Your task to perform on an android device: Turn off the flashlight Image 0: 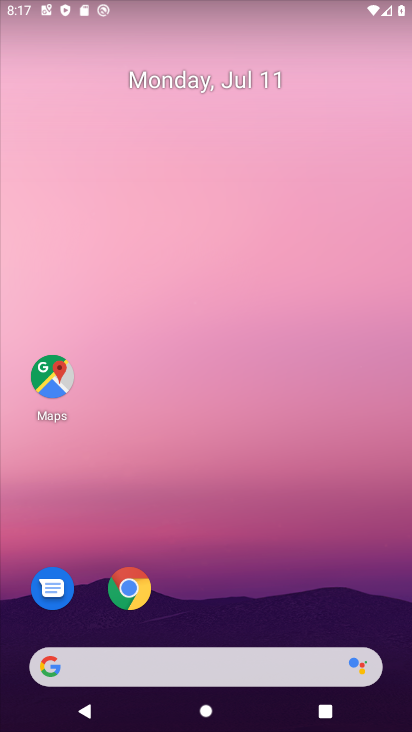
Step 0: drag from (281, 559) to (270, 186)
Your task to perform on an android device: Turn off the flashlight Image 1: 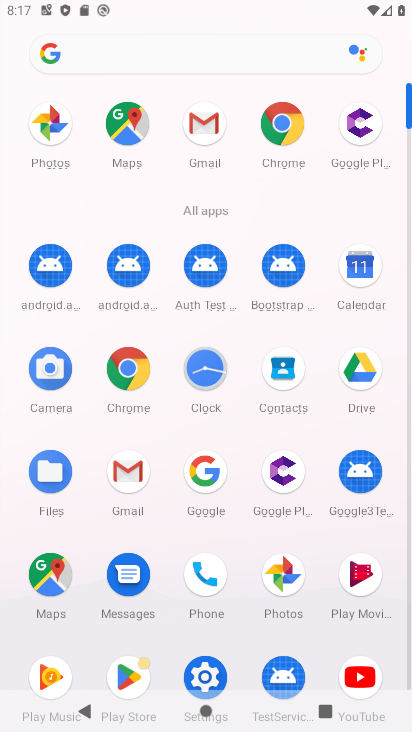
Step 1: click (204, 663)
Your task to perform on an android device: Turn off the flashlight Image 2: 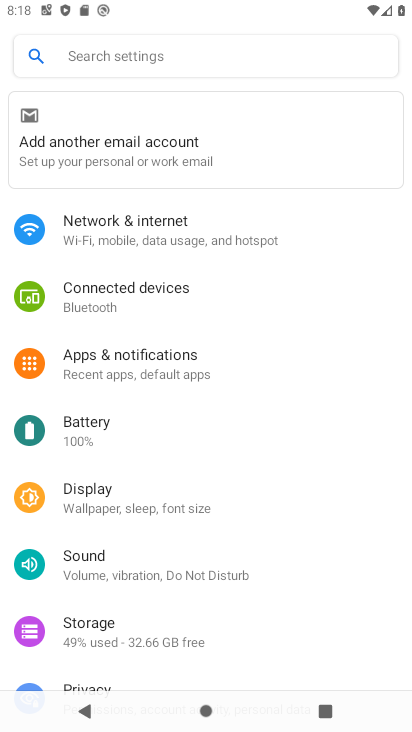
Step 2: task complete